Your task to perform on an android device: Open Google Chrome Image 0: 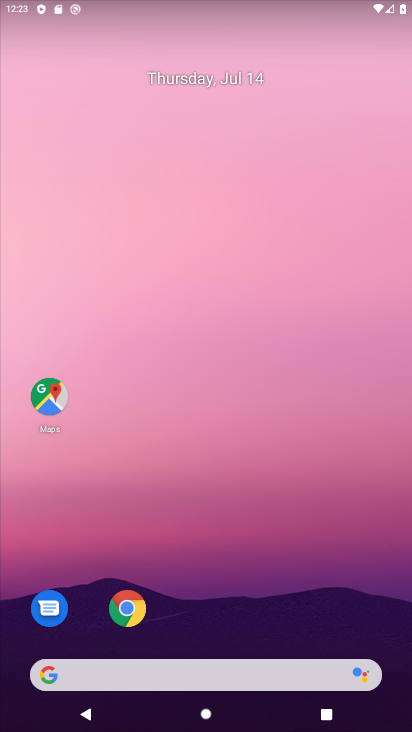
Step 0: drag from (356, 625) to (357, 66)
Your task to perform on an android device: Open Google Chrome Image 1: 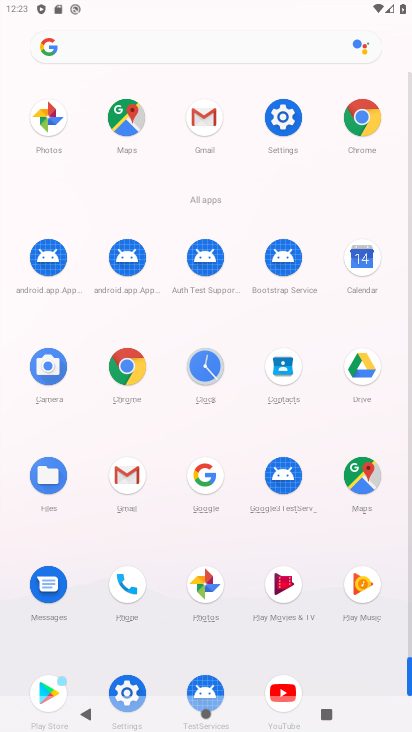
Step 1: click (130, 365)
Your task to perform on an android device: Open Google Chrome Image 2: 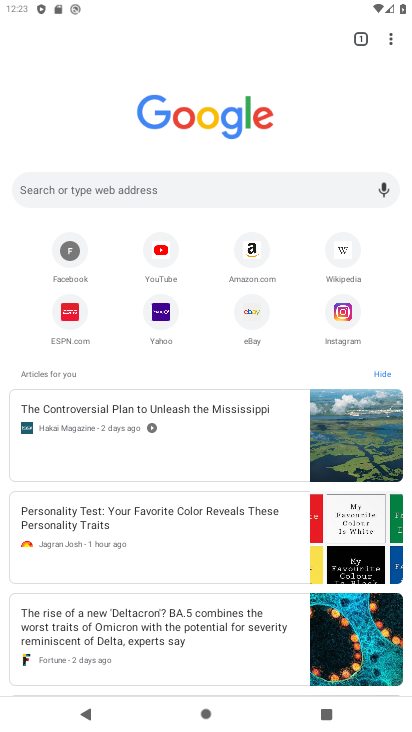
Step 2: task complete